Your task to perform on an android device: Open Youtube and go to "Your channel" Image 0: 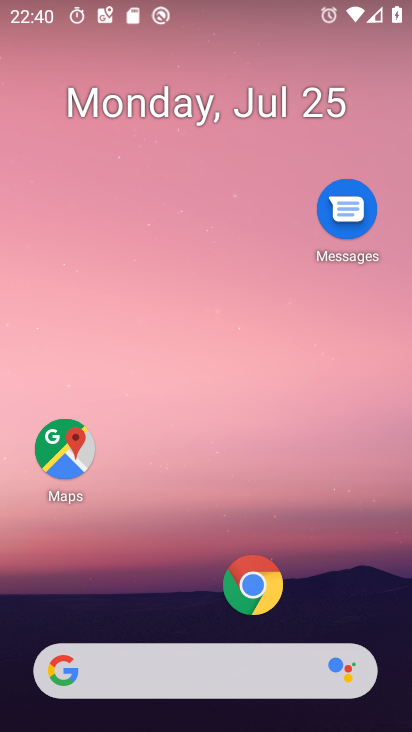
Step 0: press home button
Your task to perform on an android device: Open Youtube and go to "Your channel" Image 1: 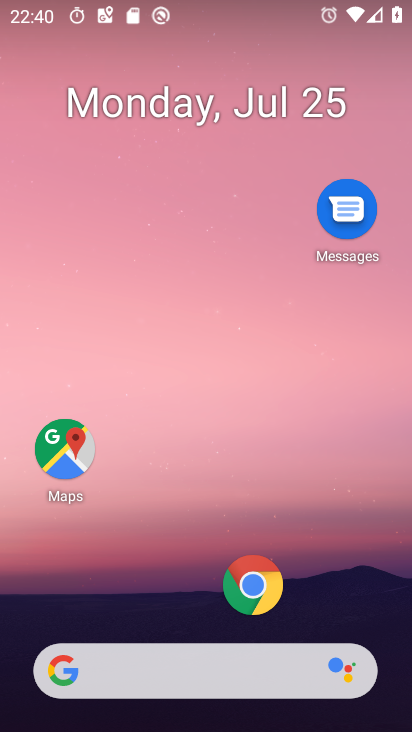
Step 1: drag from (202, 673) to (291, 33)
Your task to perform on an android device: Open Youtube and go to "Your channel" Image 2: 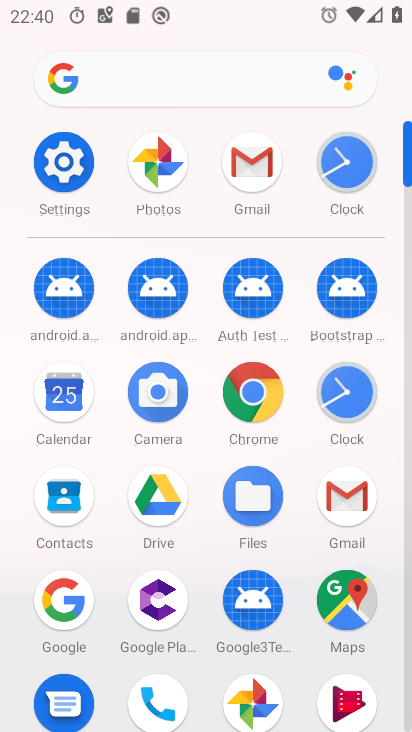
Step 2: drag from (291, 619) to (344, 142)
Your task to perform on an android device: Open Youtube and go to "Your channel" Image 3: 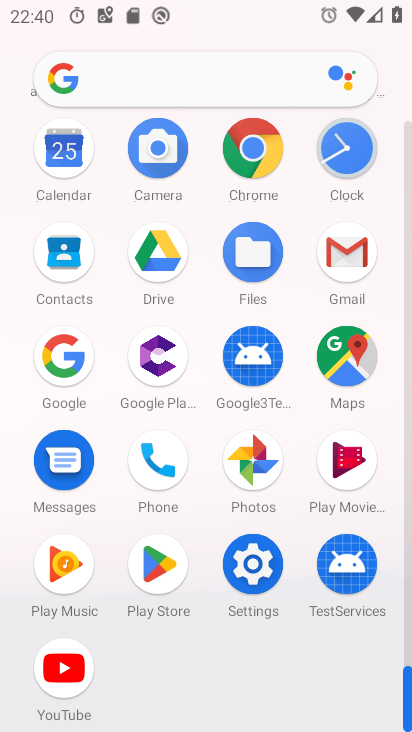
Step 3: click (70, 667)
Your task to perform on an android device: Open Youtube and go to "Your channel" Image 4: 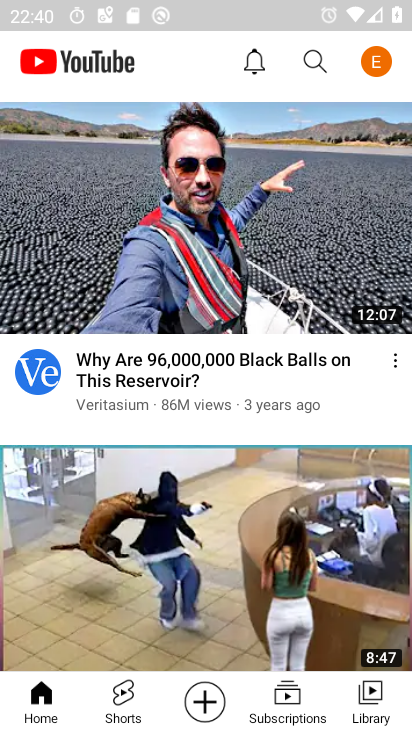
Step 4: click (373, 698)
Your task to perform on an android device: Open Youtube and go to "Your channel" Image 5: 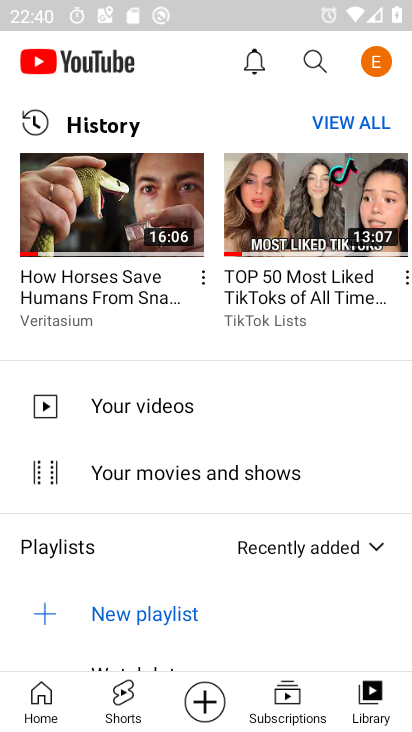
Step 5: click (380, 68)
Your task to perform on an android device: Open Youtube and go to "Your channel" Image 6: 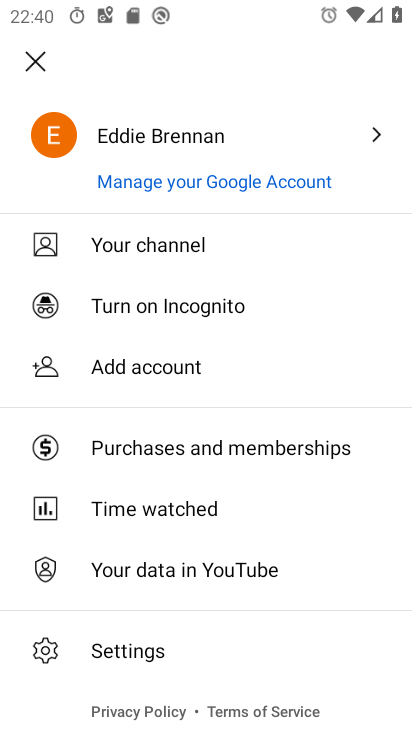
Step 6: click (160, 231)
Your task to perform on an android device: Open Youtube and go to "Your channel" Image 7: 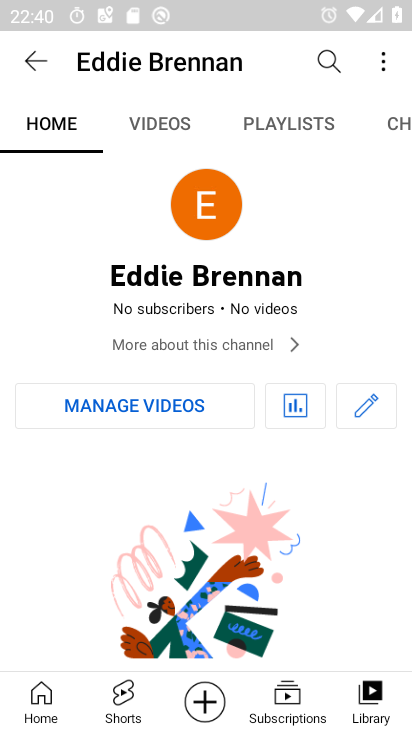
Step 7: task complete